Your task to perform on an android device: turn off location history Image 0: 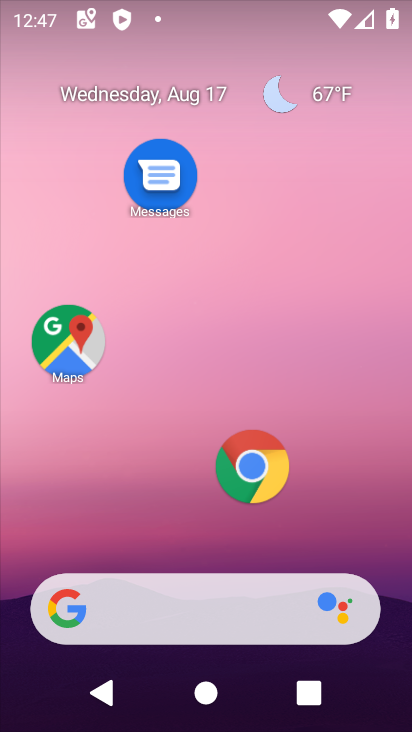
Step 0: drag from (189, 516) to (189, 8)
Your task to perform on an android device: turn off location history Image 1: 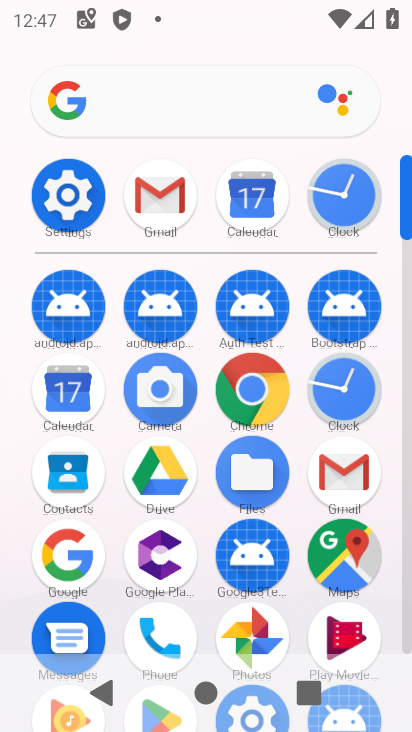
Step 1: click (75, 192)
Your task to perform on an android device: turn off location history Image 2: 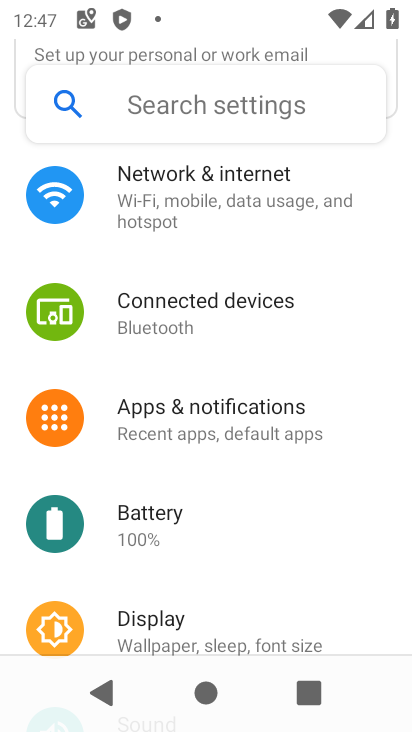
Step 2: drag from (225, 579) to (277, 50)
Your task to perform on an android device: turn off location history Image 3: 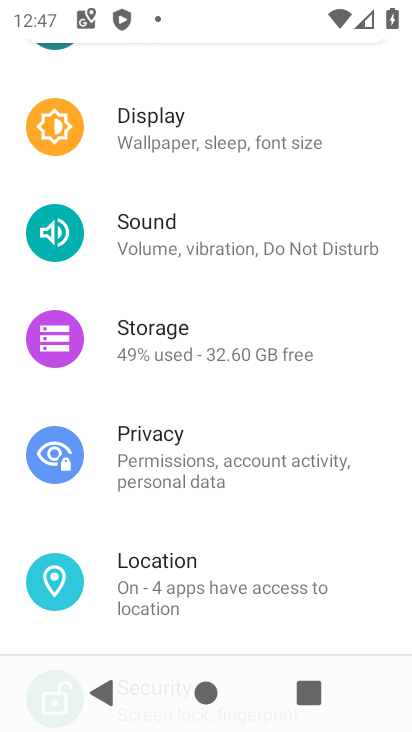
Step 3: drag from (231, 583) to (256, 129)
Your task to perform on an android device: turn off location history Image 4: 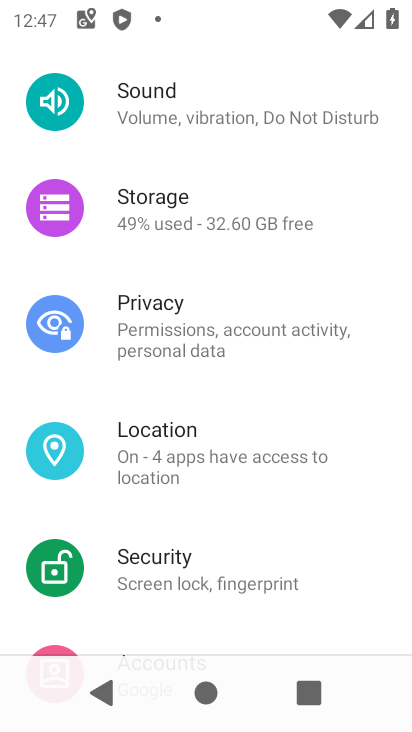
Step 4: click (193, 450)
Your task to perform on an android device: turn off location history Image 5: 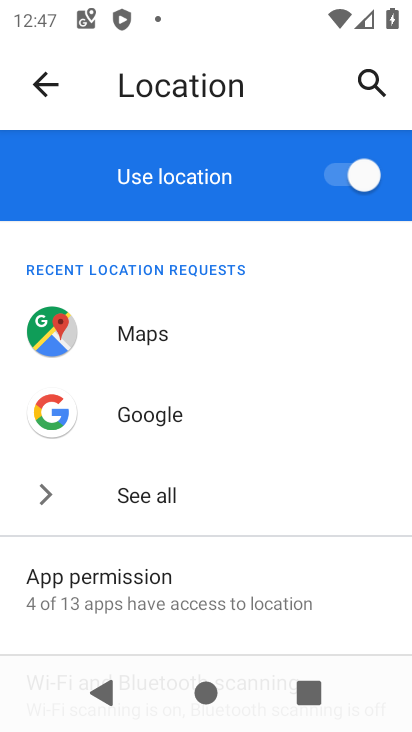
Step 5: drag from (152, 626) to (177, 282)
Your task to perform on an android device: turn off location history Image 6: 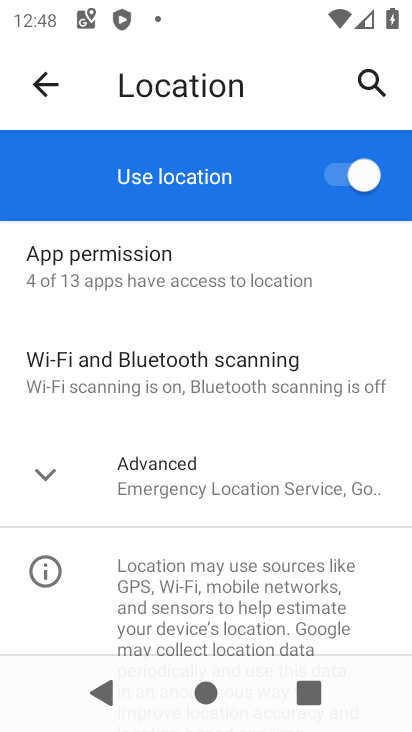
Step 6: drag from (180, 517) to (188, 163)
Your task to perform on an android device: turn off location history Image 7: 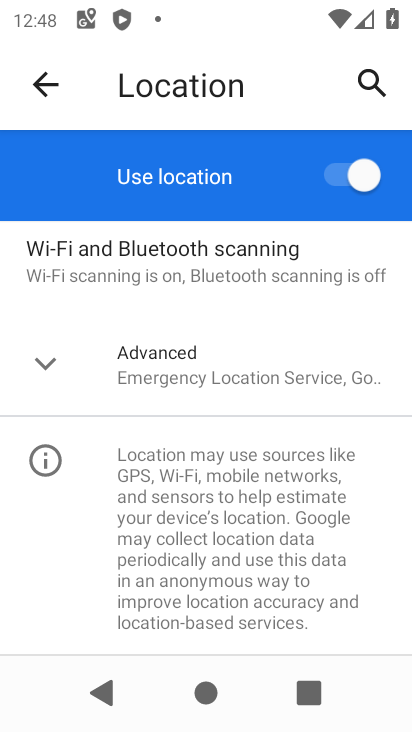
Step 7: click (49, 374)
Your task to perform on an android device: turn off location history Image 8: 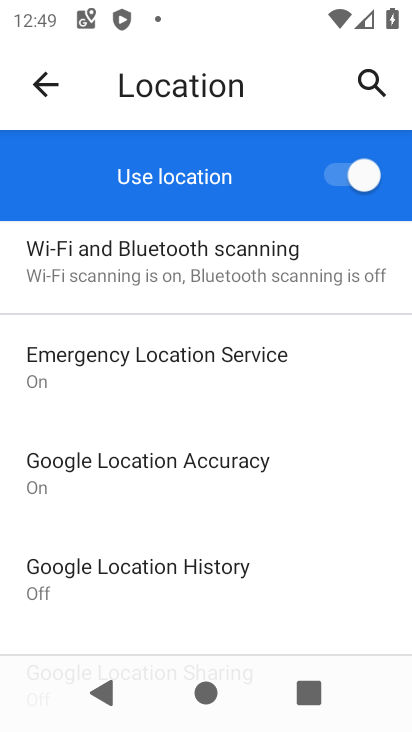
Step 8: task complete